Your task to perform on an android device: turn on priority inbox in the gmail app Image 0: 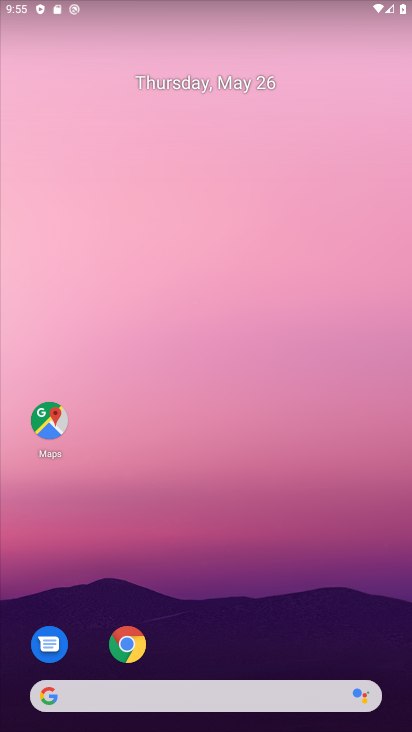
Step 0: drag from (378, 600) to (387, 275)
Your task to perform on an android device: turn on priority inbox in the gmail app Image 1: 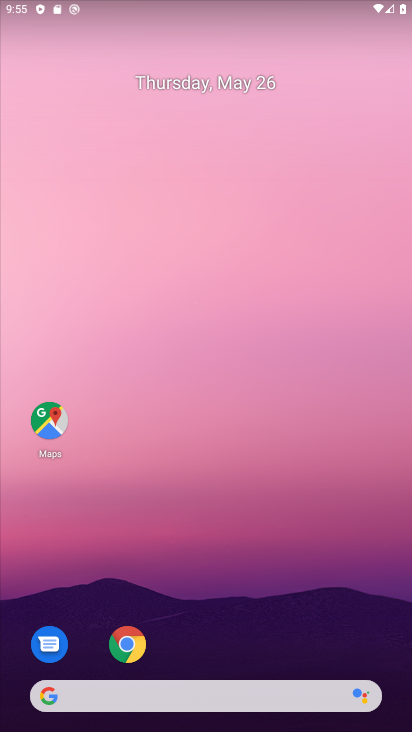
Step 1: drag from (251, 192) to (253, 80)
Your task to perform on an android device: turn on priority inbox in the gmail app Image 2: 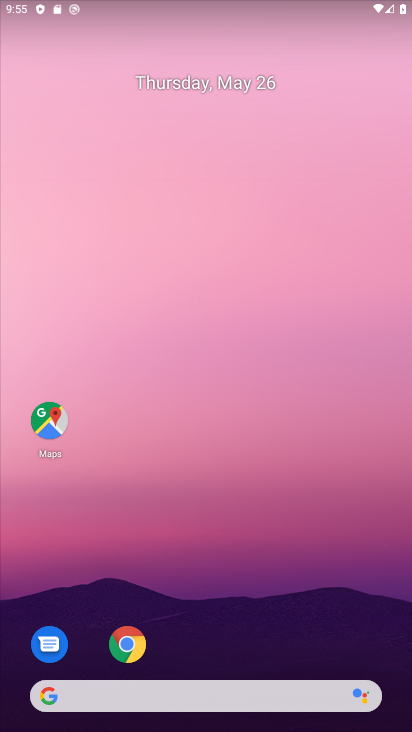
Step 2: drag from (322, 621) to (312, 326)
Your task to perform on an android device: turn on priority inbox in the gmail app Image 3: 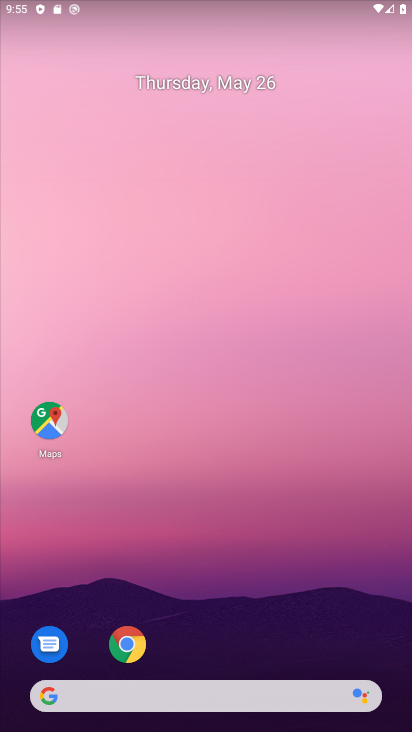
Step 3: drag from (351, 570) to (355, 53)
Your task to perform on an android device: turn on priority inbox in the gmail app Image 4: 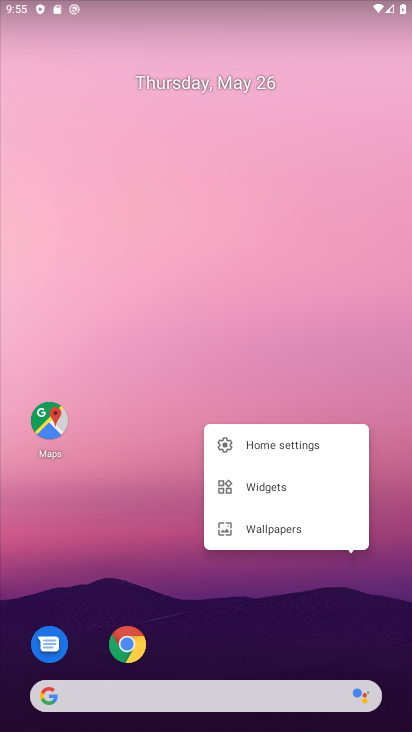
Step 4: click (326, 353)
Your task to perform on an android device: turn on priority inbox in the gmail app Image 5: 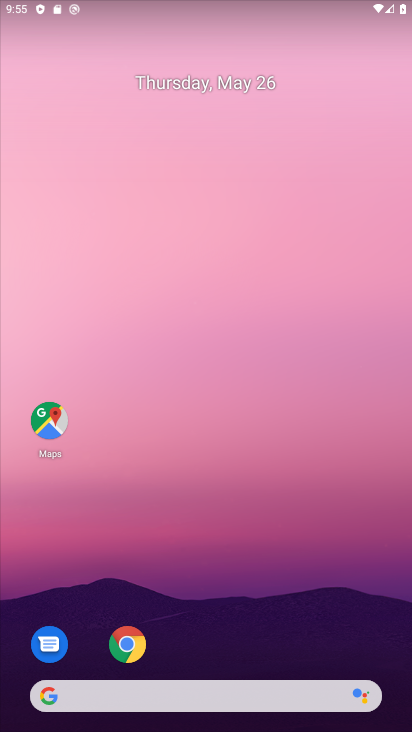
Step 5: drag from (281, 617) to (298, 75)
Your task to perform on an android device: turn on priority inbox in the gmail app Image 6: 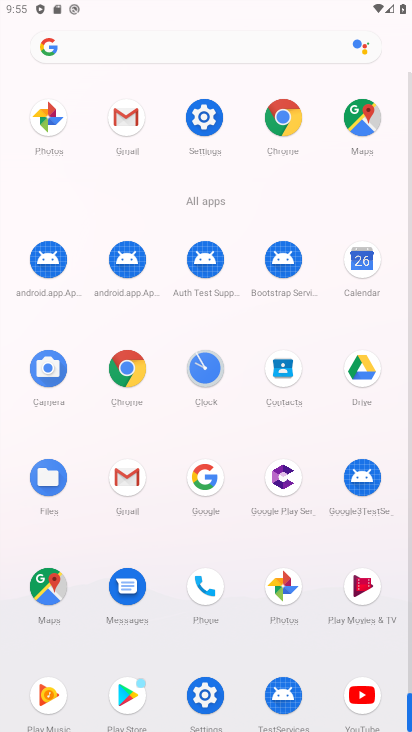
Step 6: click (144, 143)
Your task to perform on an android device: turn on priority inbox in the gmail app Image 7: 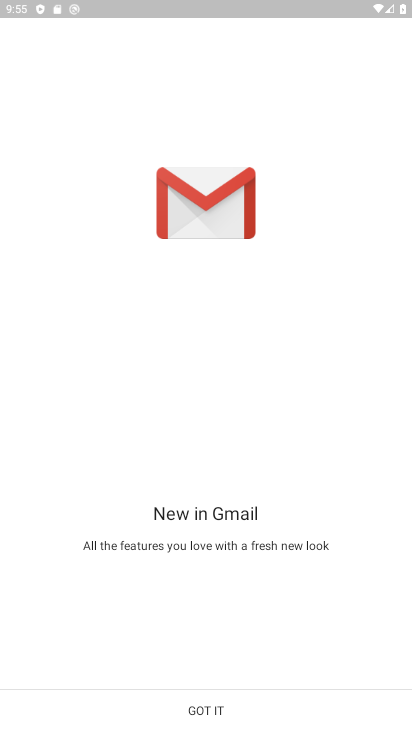
Step 7: click (191, 712)
Your task to perform on an android device: turn on priority inbox in the gmail app Image 8: 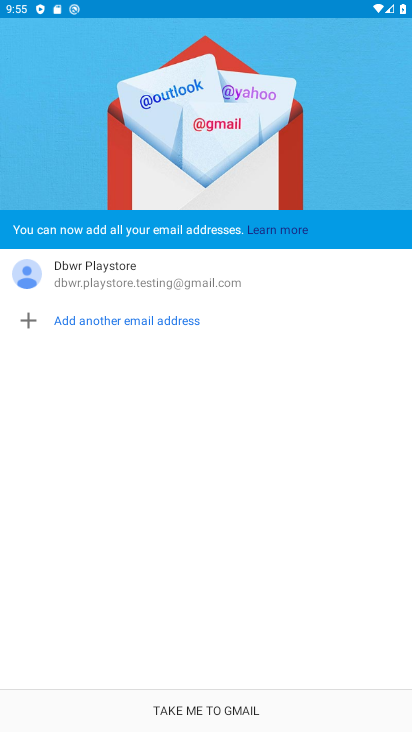
Step 8: click (202, 714)
Your task to perform on an android device: turn on priority inbox in the gmail app Image 9: 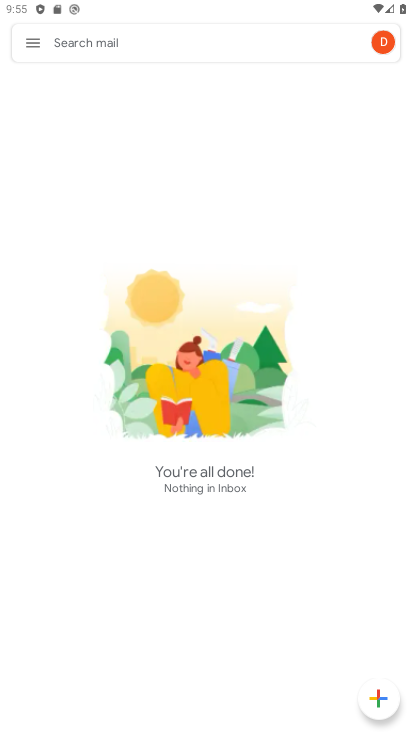
Step 9: click (38, 42)
Your task to perform on an android device: turn on priority inbox in the gmail app Image 10: 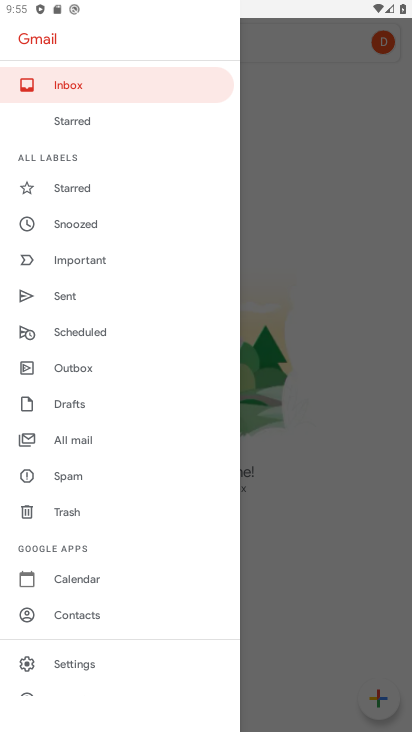
Step 10: click (58, 663)
Your task to perform on an android device: turn on priority inbox in the gmail app Image 11: 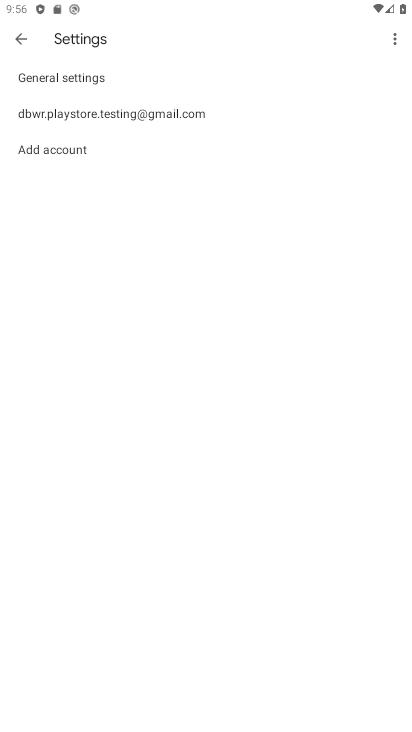
Step 11: click (170, 127)
Your task to perform on an android device: turn on priority inbox in the gmail app Image 12: 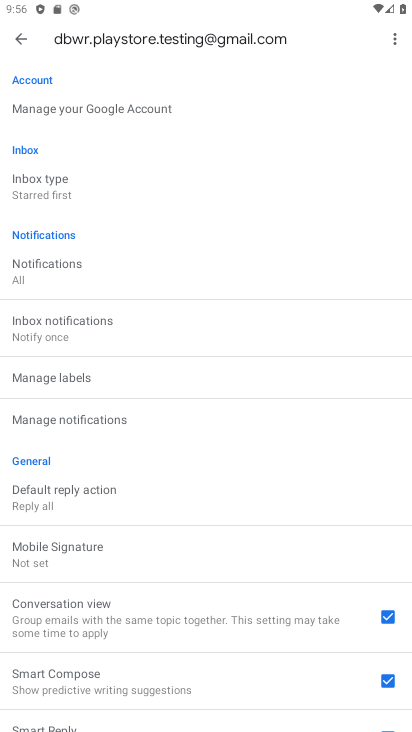
Step 12: click (85, 194)
Your task to perform on an android device: turn on priority inbox in the gmail app Image 13: 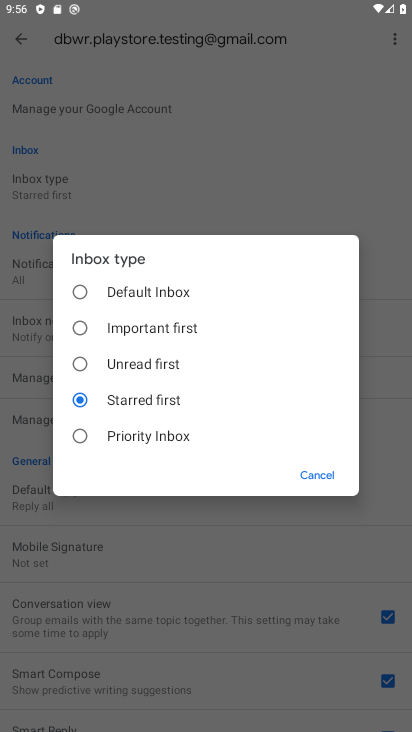
Step 13: click (87, 447)
Your task to perform on an android device: turn on priority inbox in the gmail app Image 14: 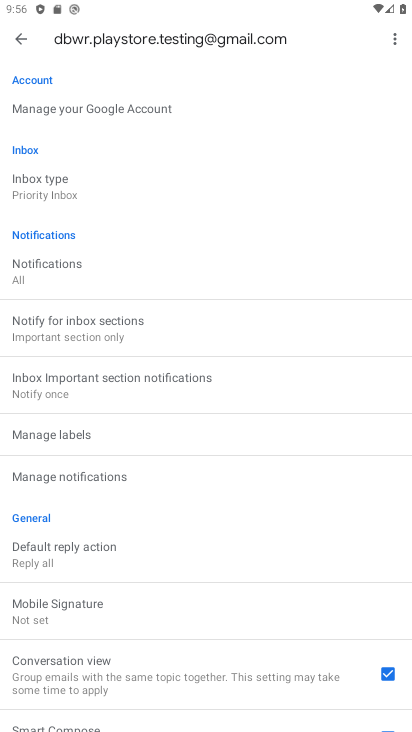
Step 14: task complete